Your task to perform on an android device: Open Amazon Image 0: 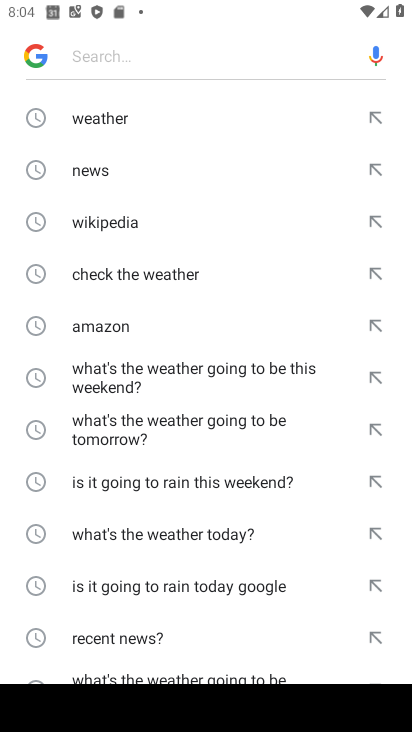
Step 0: press home button
Your task to perform on an android device: Open Amazon Image 1: 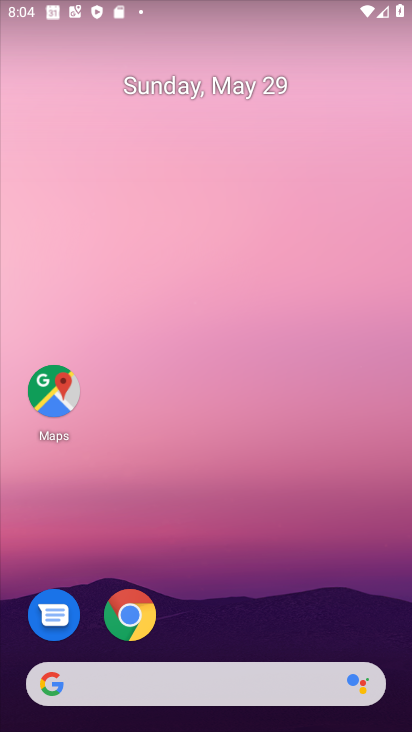
Step 1: click (160, 693)
Your task to perform on an android device: Open Amazon Image 2: 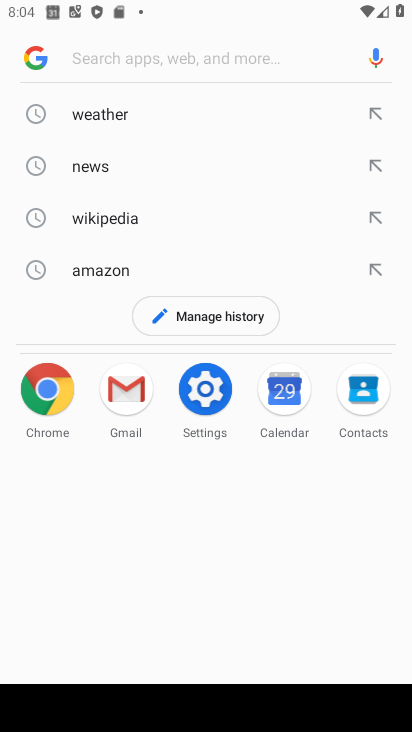
Step 2: click (93, 280)
Your task to perform on an android device: Open Amazon Image 3: 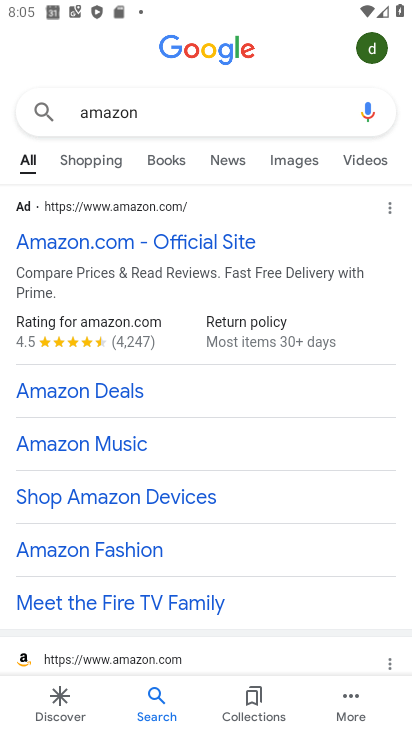
Step 3: drag from (339, 658) to (333, 332)
Your task to perform on an android device: Open Amazon Image 4: 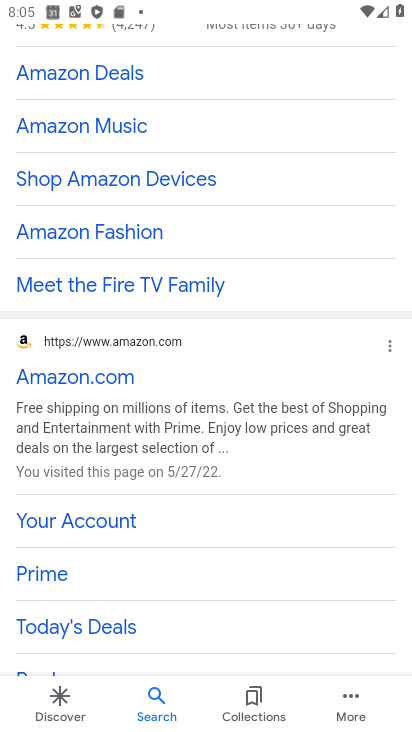
Step 4: click (33, 380)
Your task to perform on an android device: Open Amazon Image 5: 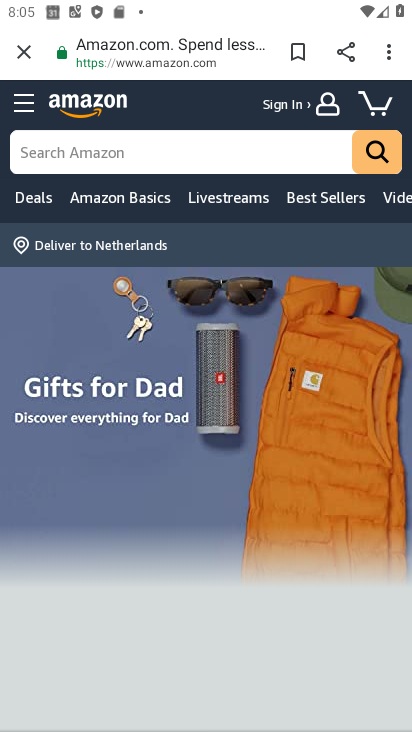
Step 5: task complete